Your task to perform on an android device: open a bookmark in the chrome app Image 0: 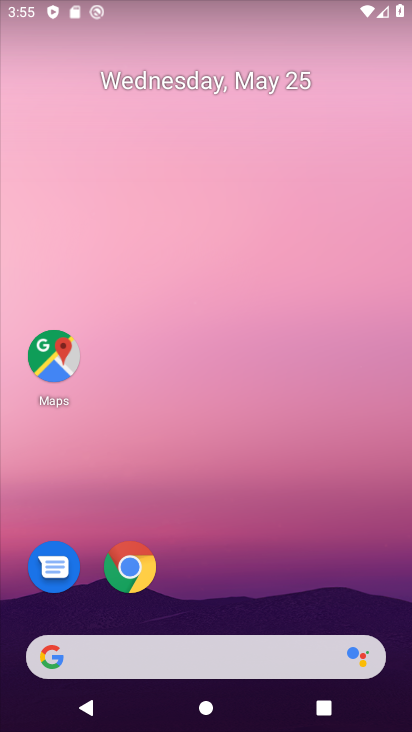
Step 0: click (143, 582)
Your task to perform on an android device: open a bookmark in the chrome app Image 1: 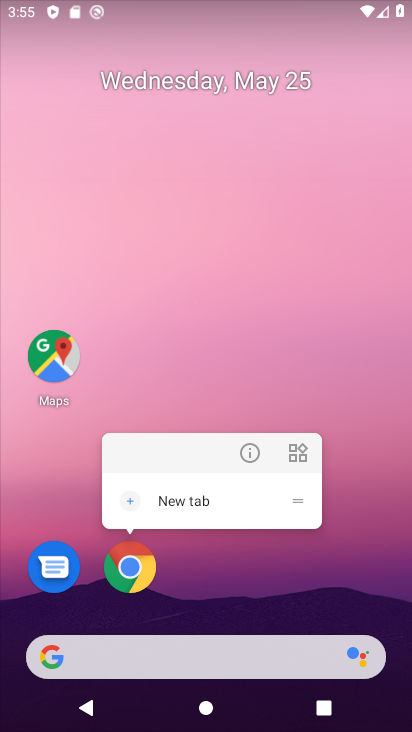
Step 1: click (145, 577)
Your task to perform on an android device: open a bookmark in the chrome app Image 2: 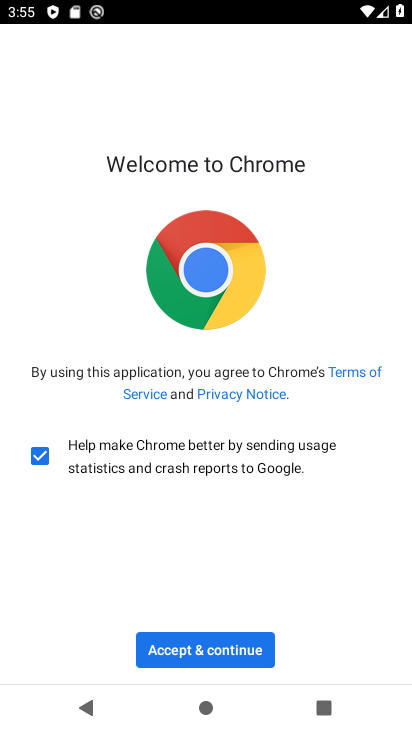
Step 2: click (257, 675)
Your task to perform on an android device: open a bookmark in the chrome app Image 3: 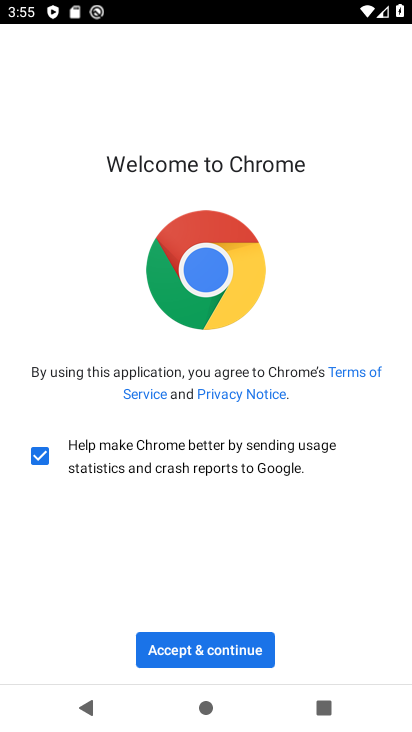
Step 3: click (229, 662)
Your task to perform on an android device: open a bookmark in the chrome app Image 4: 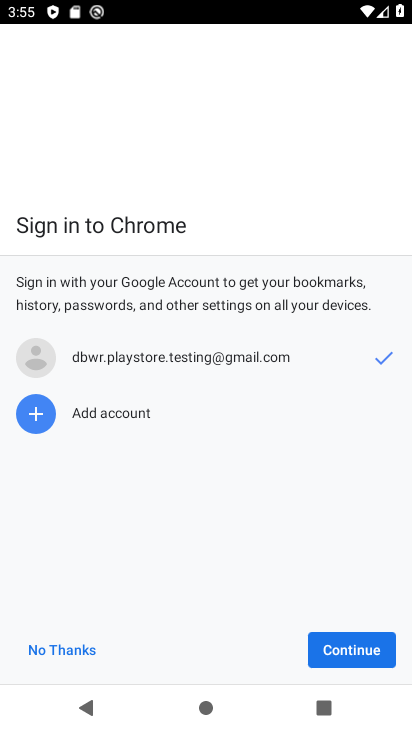
Step 4: click (365, 656)
Your task to perform on an android device: open a bookmark in the chrome app Image 5: 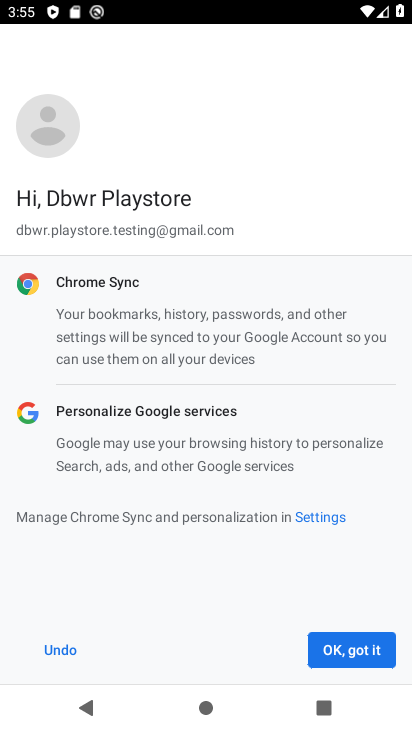
Step 5: click (365, 654)
Your task to perform on an android device: open a bookmark in the chrome app Image 6: 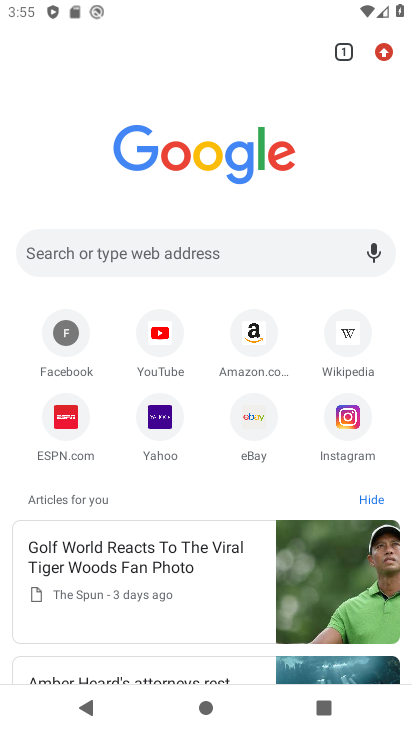
Step 6: task complete